Your task to perform on an android device: toggle location history Image 0: 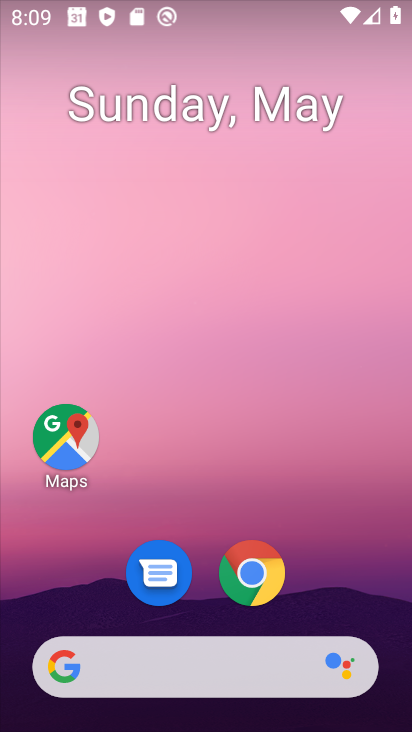
Step 0: click (73, 457)
Your task to perform on an android device: toggle location history Image 1: 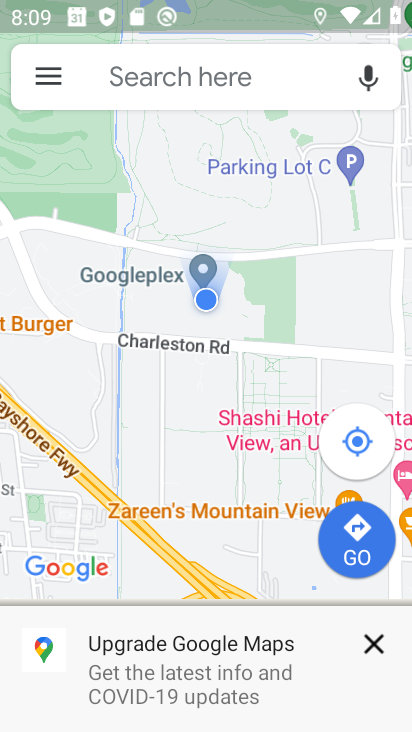
Step 1: click (53, 81)
Your task to perform on an android device: toggle location history Image 2: 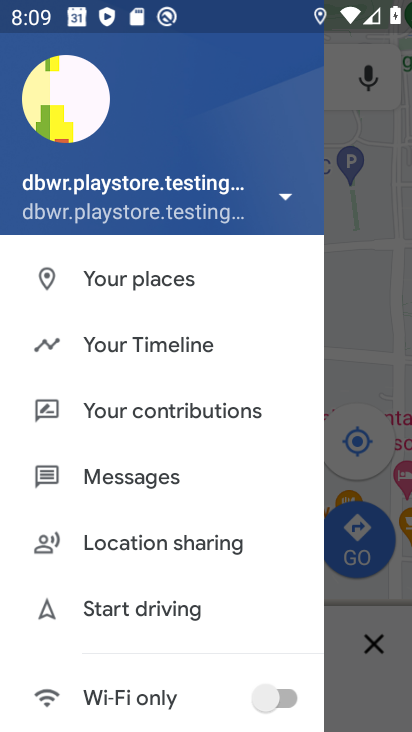
Step 2: click (126, 344)
Your task to perform on an android device: toggle location history Image 3: 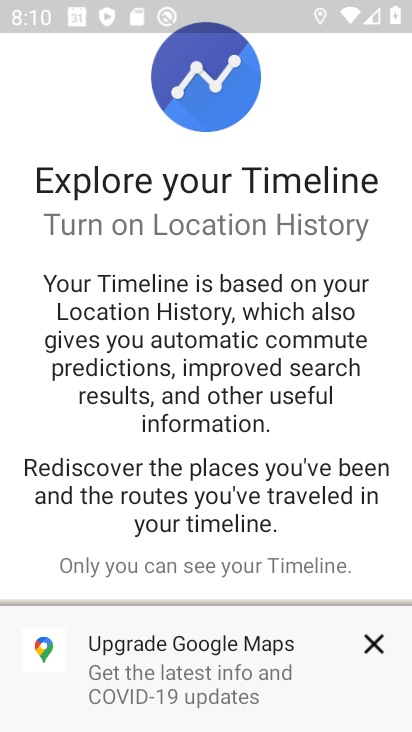
Step 3: click (372, 642)
Your task to perform on an android device: toggle location history Image 4: 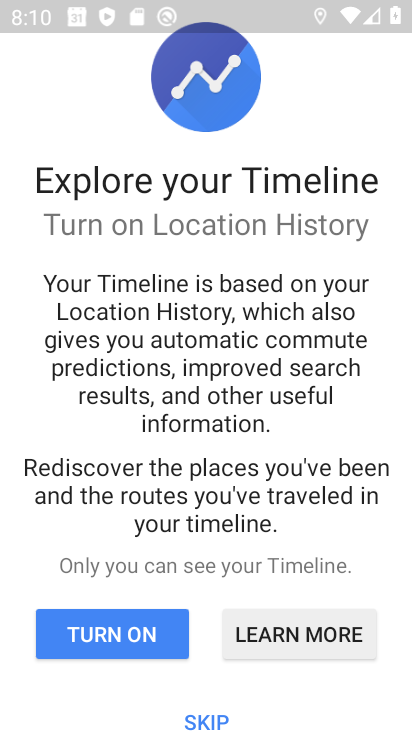
Step 4: click (204, 715)
Your task to perform on an android device: toggle location history Image 5: 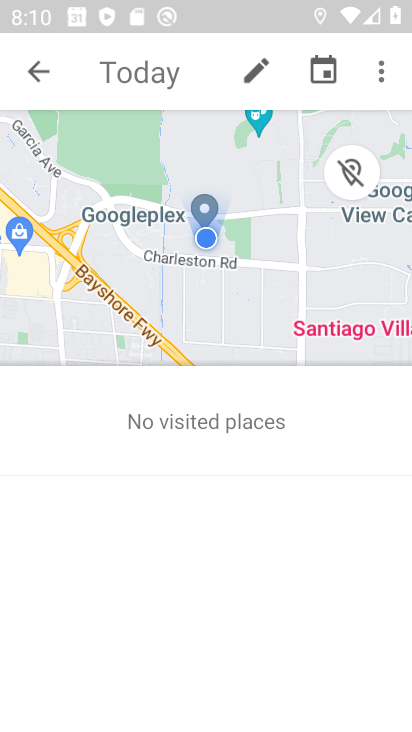
Step 5: click (387, 77)
Your task to perform on an android device: toggle location history Image 6: 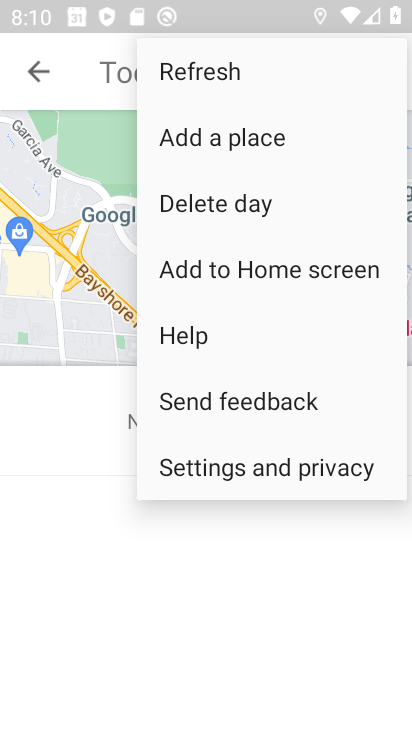
Step 6: click (212, 466)
Your task to perform on an android device: toggle location history Image 7: 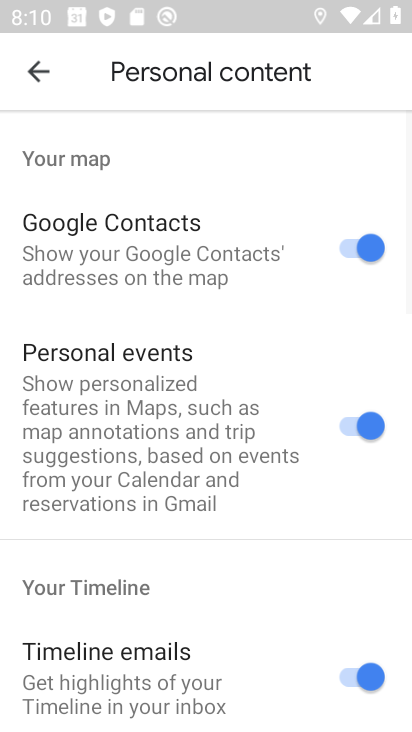
Step 7: drag from (234, 663) to (204, 159)
Your task to perform on an android device: toggle location history Image 8: 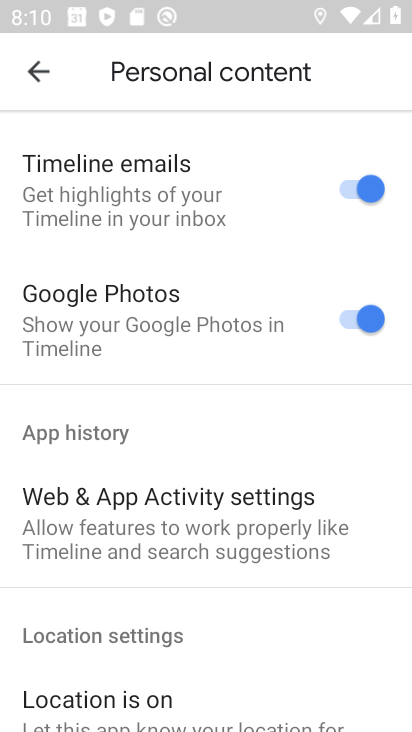
Step 8: drag from (247, 667) to (241, 183)
Your task to perform on an android device: toggle location history Image 9: 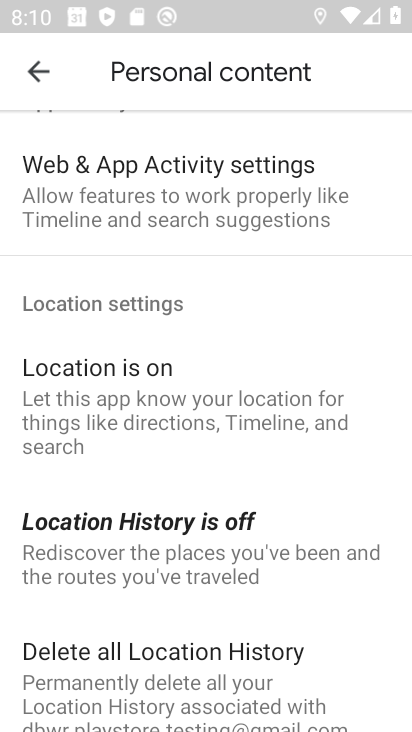
Step 9: click (208, 574)
Your task to perform on an android device: toggle location history Image 10: 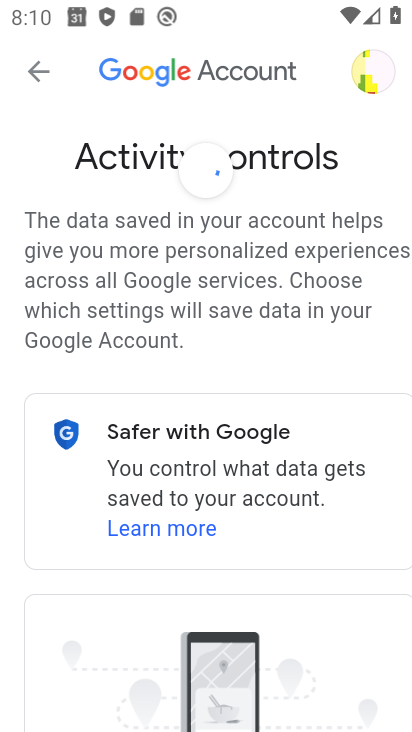
Step 10: drag from (306, 644) to (262, 229)
Your task to perform on an android device: toggle location history Image 11: 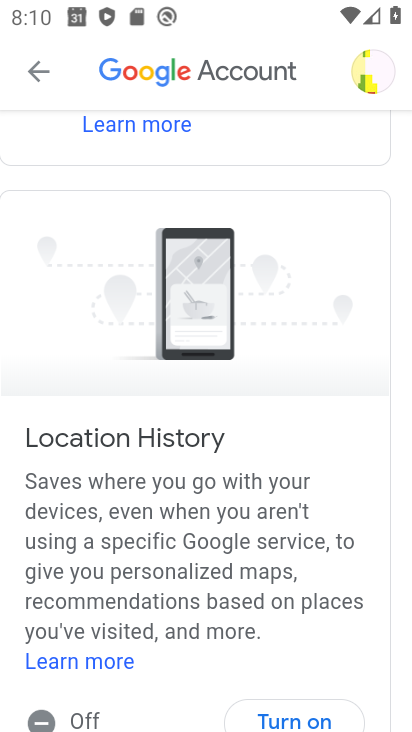
Step 11: drag from (319, 688) to (296, 259)
Your task to perform on an android device: toggle location history Image 12: 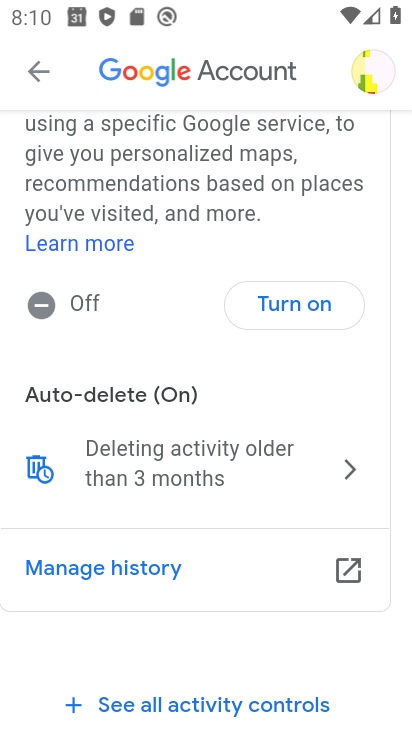
Step 12: click (299, 304)
Your task to perform on an android device: toggle location history Image 13: 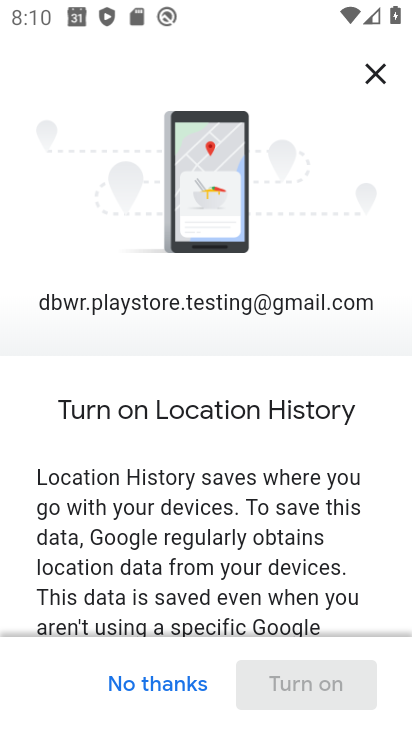
Step 13: drag from (272, 548) to (236, 122)
Your task to perform on an android device: toggle location history Image 14: 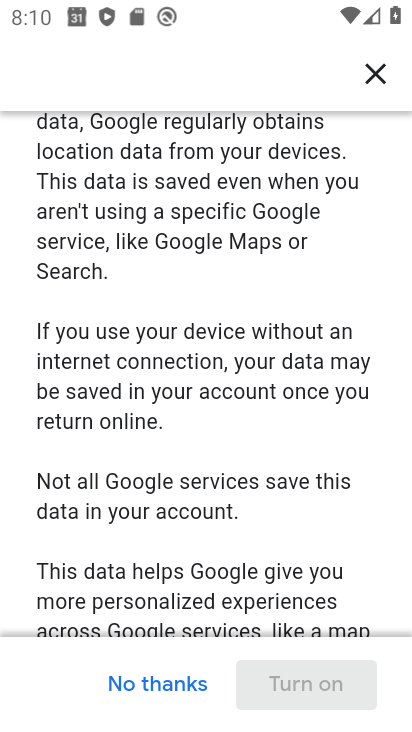
Step 14: drag from (251, 558) to (216, 175)
Your task to perform on an android device: toggle location history Image 15: 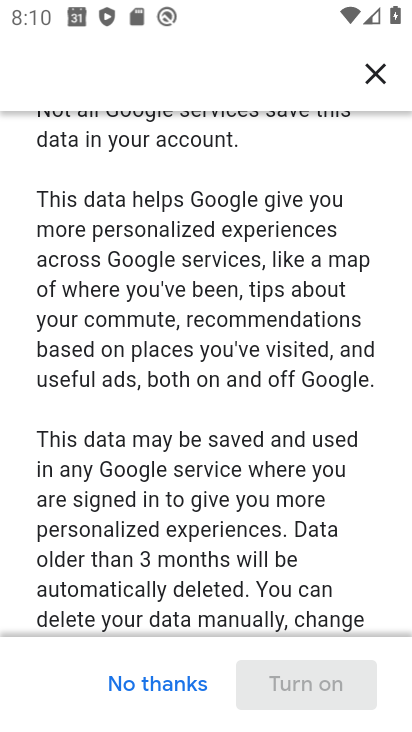
Step 15: drag from (301, 619) to (260, 126)
Your task to perform on an android device: toggle location history Image 16: 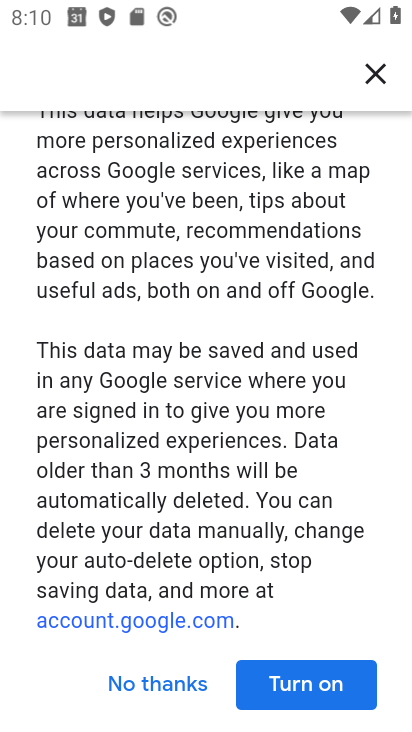
Step 16: click (328, 689)
Your task to perform on an android device: toggle location history Image 17: 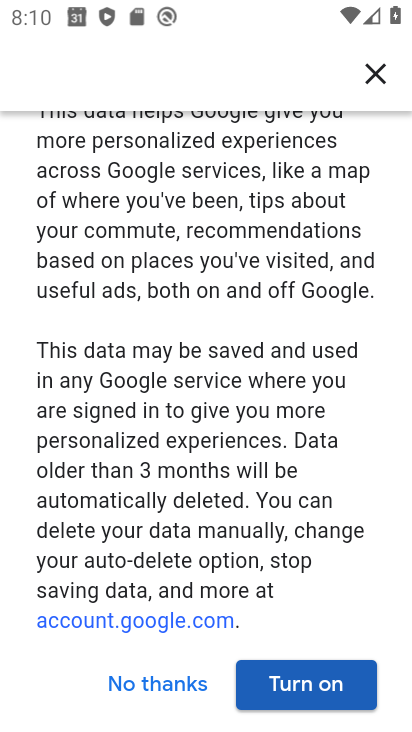
Step 17: click (293, 679)
Your task to perform on an android device: toggle location history Image 18: 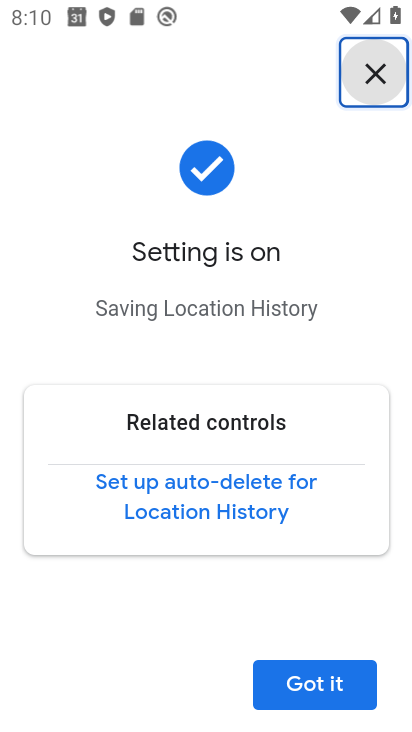
Step 18: click (293, 679)
Your task to perform on an android device: toggle location history Image 19: 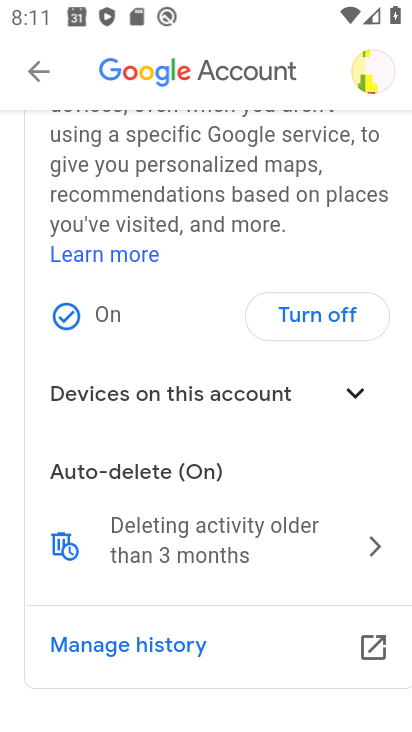
Step 19: task complete